Your task to perform on an android device: turn on priority inbox in the gmail app Image 0: 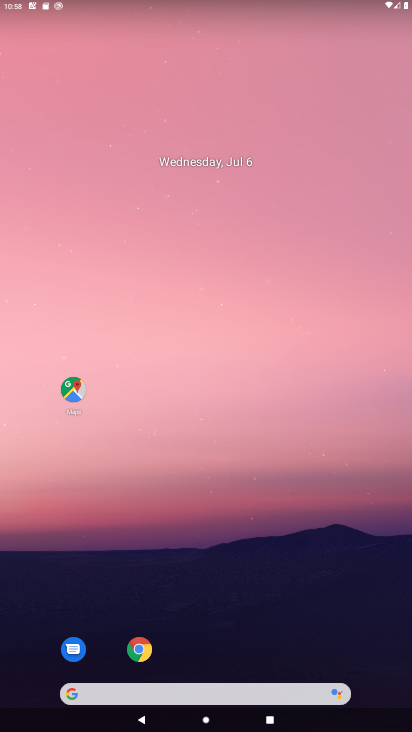
Step 0: drag from (211, 709) to (298, 125)
Your task to perform on an android device: turn on priority inbox in the gmail app Image 1: 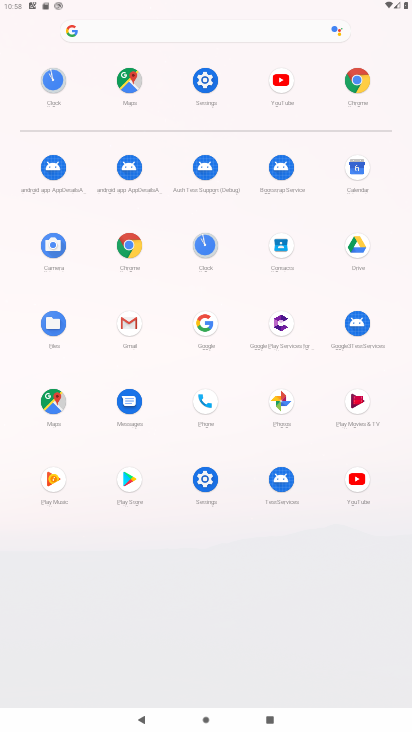
Step 1: click (138, 315)
Your task to perform on an android device: turn on priority inbox in the gmail app Image 2: 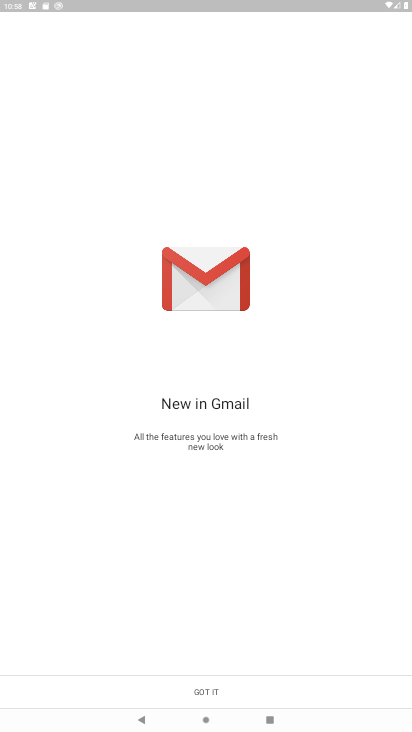
Step 2: click (257, 692)
Your task to perform on an android device: turn on priority inbox in the gmail app Image 3: 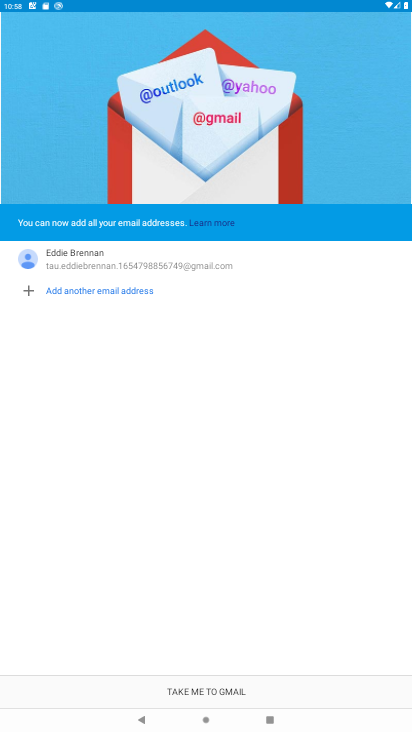
Step 3: click (257, 692)
Your task to perform on an android device: turn on priority inbox in the gmail app Image 4: 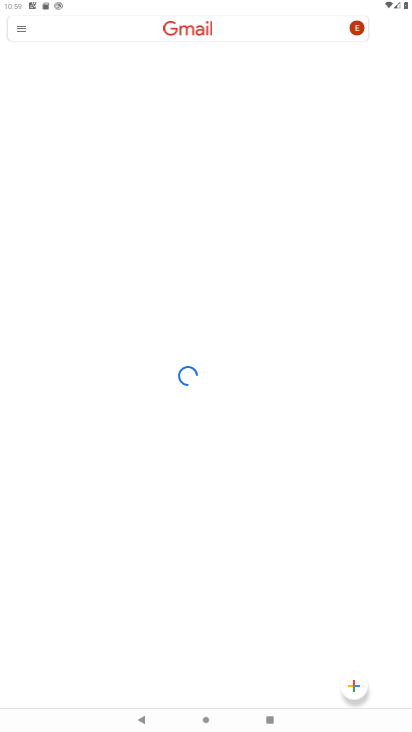
Step 4: click (57, 28)
Your task to perform on an android device: turn on priority inbox in the gmail app Image 5: 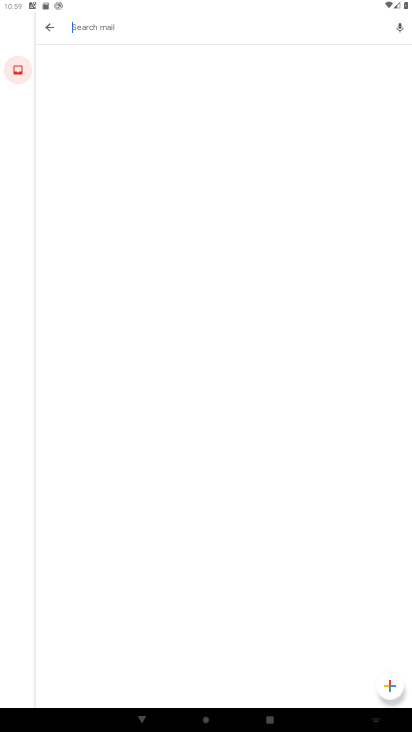
Step 5: press back button
Your task to perform on an android device: turn on priority inbox in the gmail app Image 6: 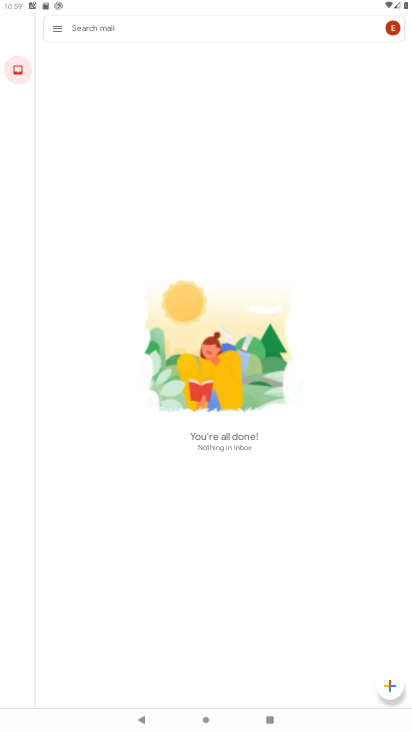
Step 6: click (57, 27)
Your task to perform on an android device: turn on priority inbox in the gmail app Image 7: 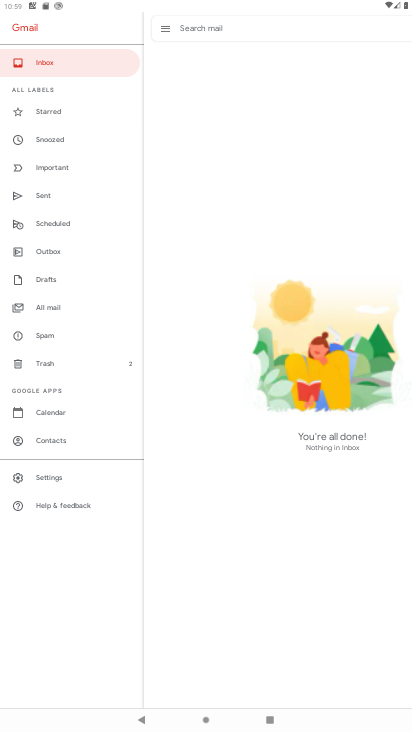
Step 7: click (58, 478)
Your task to perform on an android device: turn on priority inbox in the gmail app Image 8: 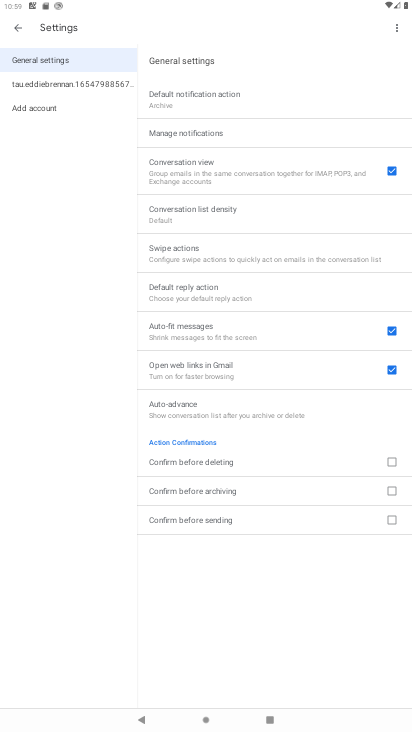
Step 8: press back button
Your task to perform on an android device: turn on priority inbox in the gmail app Image 9: 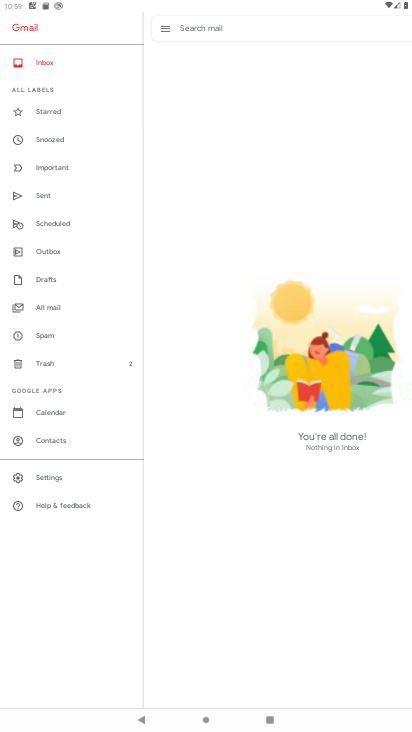
Step 9: click (49, 482)
Your task to perform on an android device: turn on priority inbox in the gmail app Image 10: 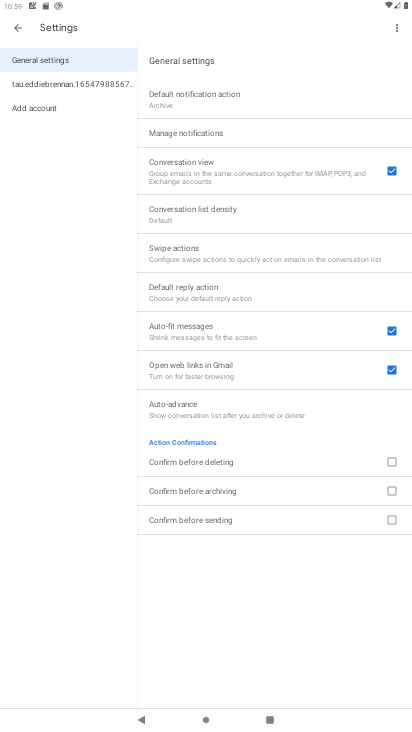
Step 10: click (91, 85)
Your task to perform on an android device: turn on priority inbox in the gmail app Image 11: 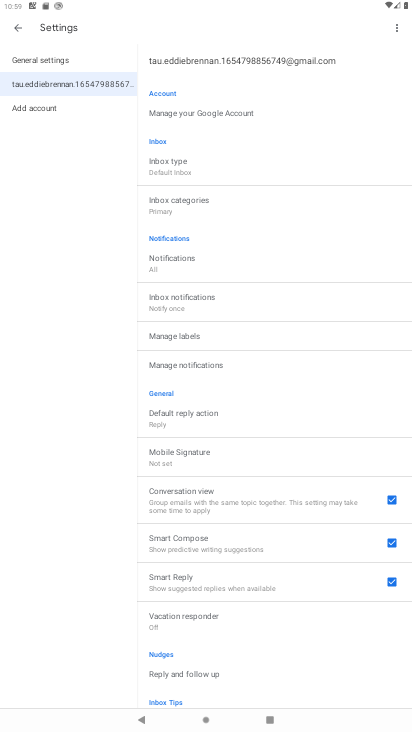
Step 11: click (206, 176)
Your task to perform on an android device: turn on priority inbox in the gmail app Image 12: 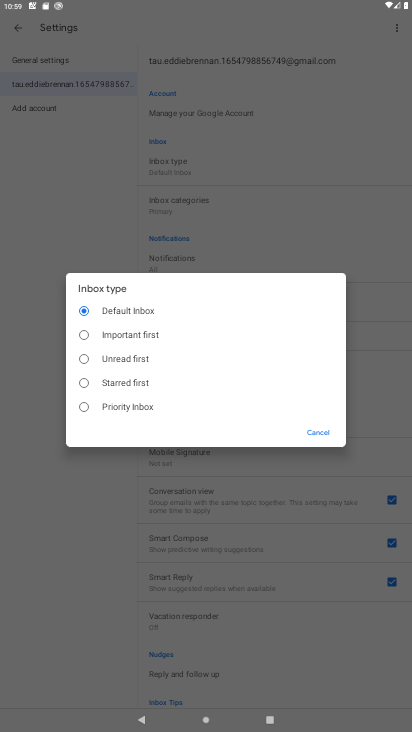
Step 12: click (81, 402)
Your task to perform on an android device: turn on priority inbox in the gmail app Image 13: 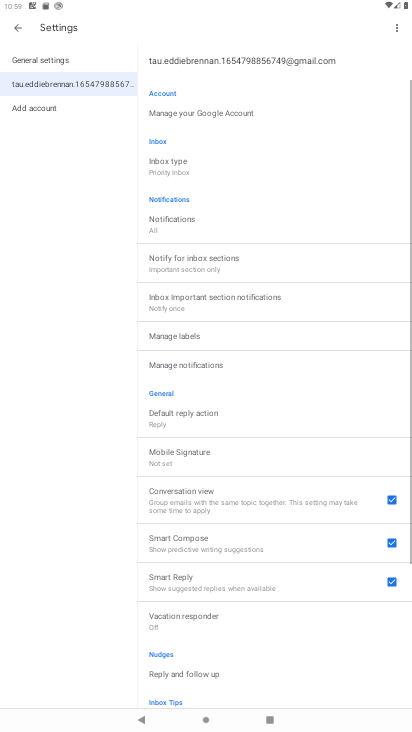
Step 13: task complete